Your task to perform on an android device: change the clock style Image 0: 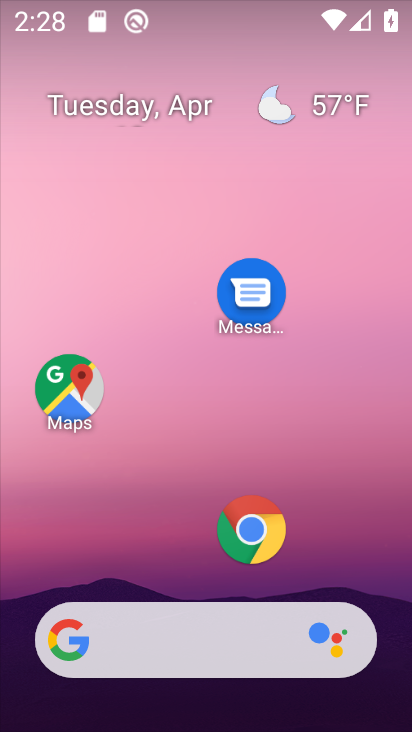
Step 0: drag from (164, 333) to (171, 151)
Your task to perform on an android device: change the clock style Image 1: 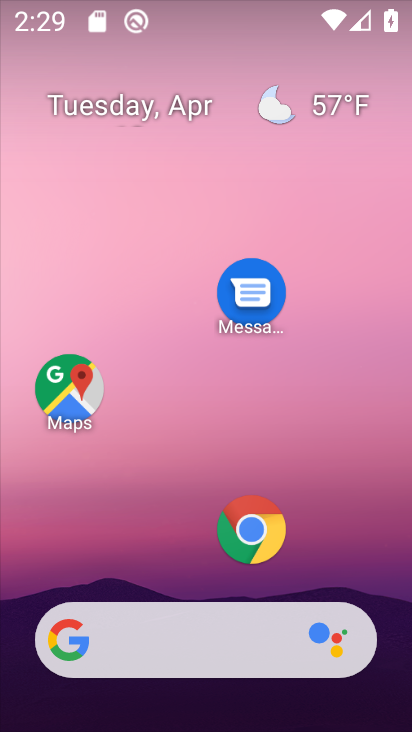
Step 1: drag from (150, 480) to (110, 120)
Your task to perform on an android device: change the clock style Image 2: 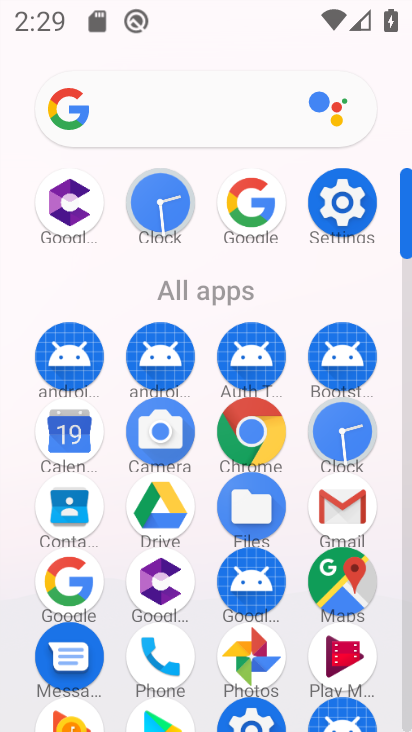
Step 2: click (162, 209)
Your task to perform on an android device: change the clock style Image 3: 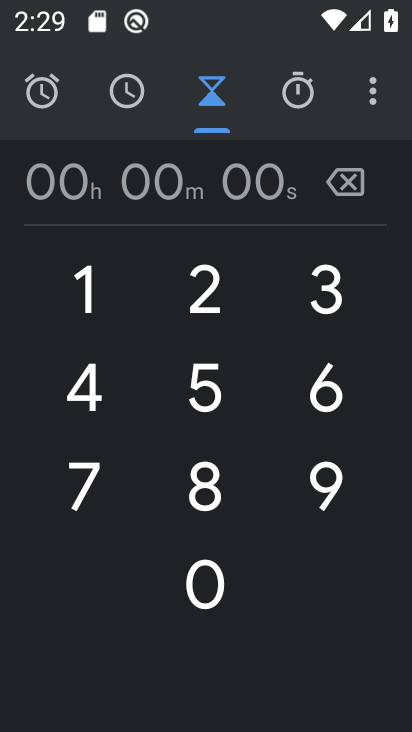
Step 3: click (372, 88)
Your task to perform on an android device: change the clock style Image 4: 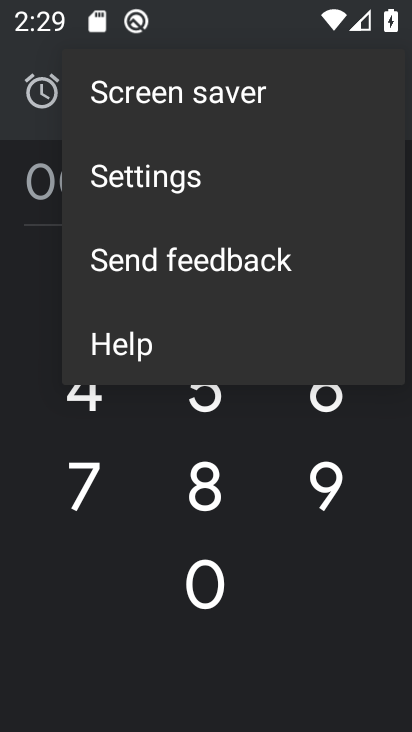
Step 4: click (225, 179)
Your task to perform on an android device: change the clock style Image 5: 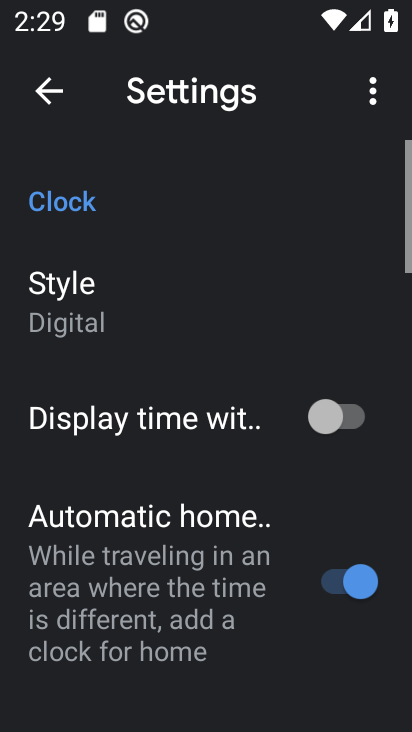
Step 5: click (119, 314)
Your task to perform on an android device: change the clock style Image 6: 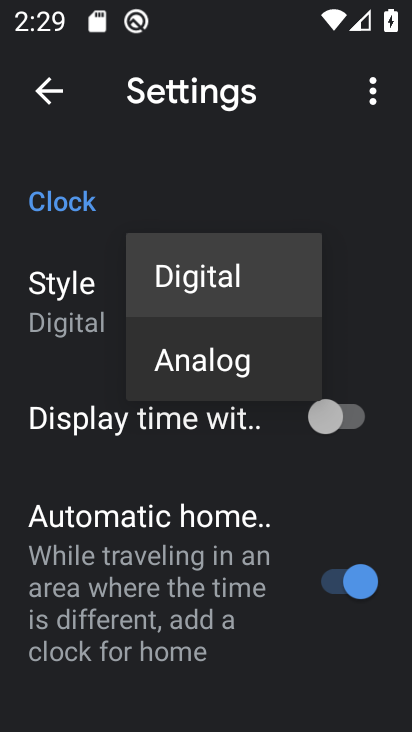
Step 6: click (190, 352)
Your task to perform on an android device: change the clock style Image 7: 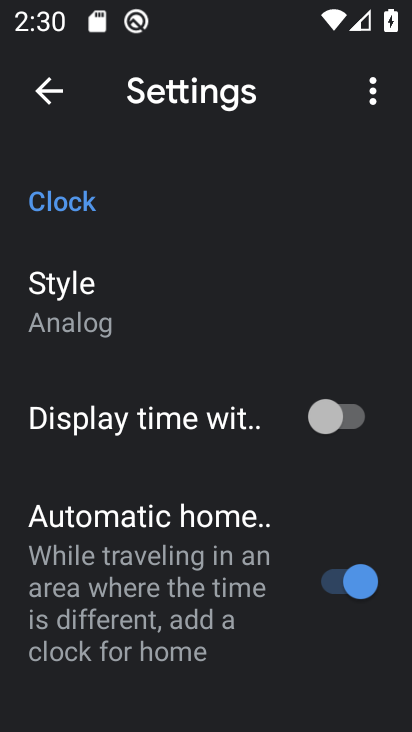
Step 7: task complete